Your task to perform on an android device: When is my next meeting? Image 0: 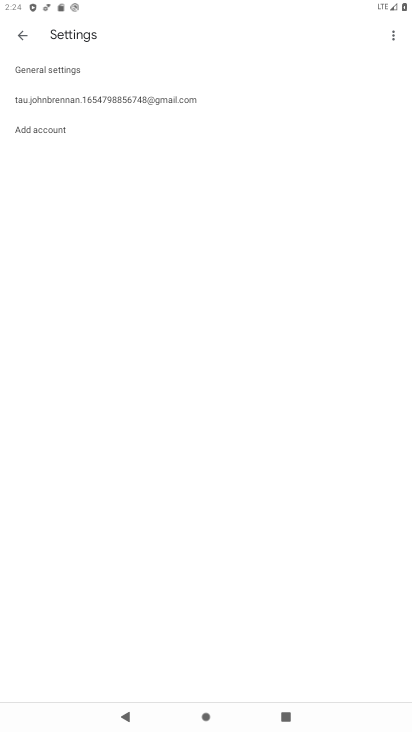
Step 0: press home button
Your task to perform on an android device: When is my next meeting? Image 1: 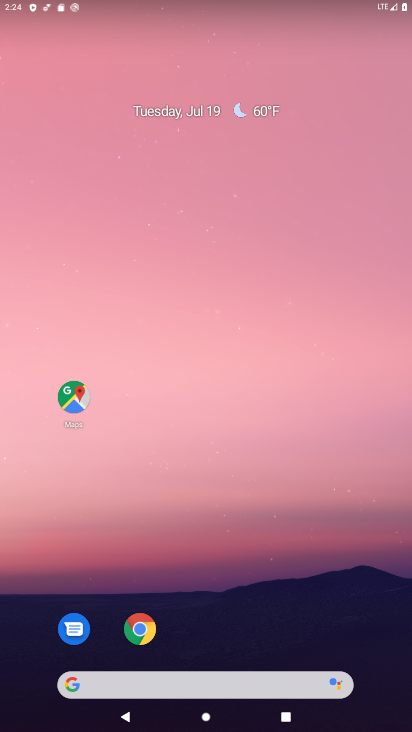
Step 1: drag from (193, 628) to (229, 119)
Your task to perform on an android device: When is my next meeting? Image 2: 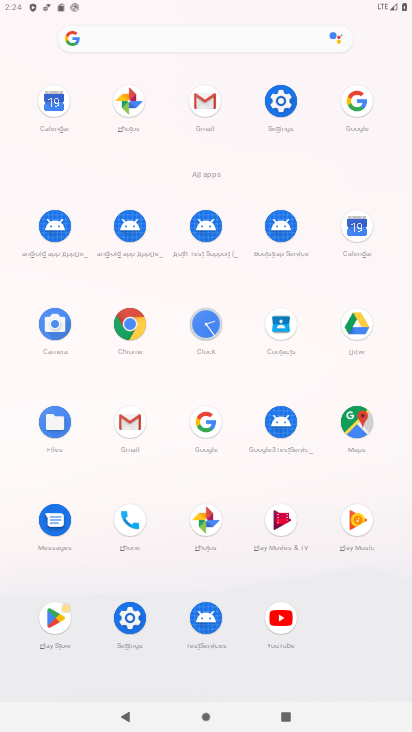
Step 2: click (358, 240)
Your task to perform on an android device: When is my next meeting? Image 3: 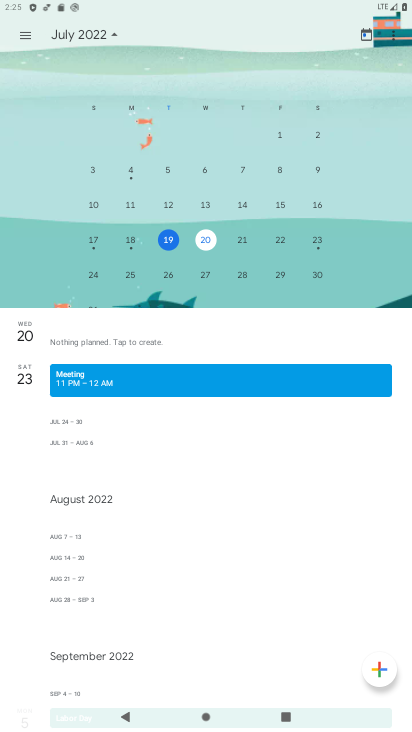
Step 3: task complete